Your task to perform on an android device: stop showing notifications on the lock screen Image 0: 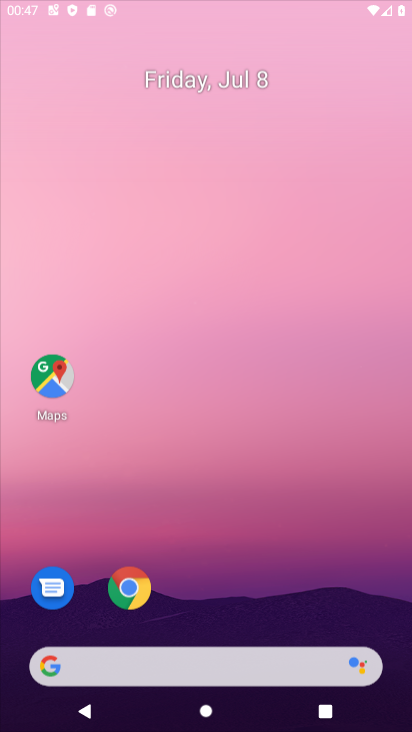
Step 0: click (296, 6)
Your task to perform on an android device: stop showing notifications on the lock screen Image 1: 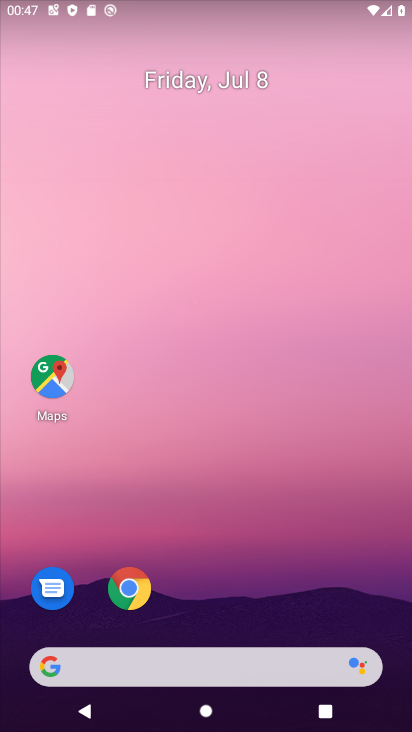
Step 1: drag from (193, 639) to (306, 99)
Your task to perform on an android device: stop showing notifications on the lock screen Image 2: 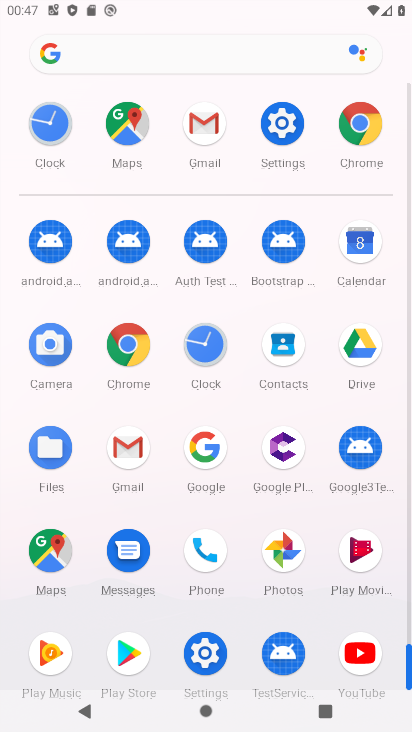
Step 2: click (289, 130)
Your task to perform on an android device: stop showing notifications on the lock screen Image 3: 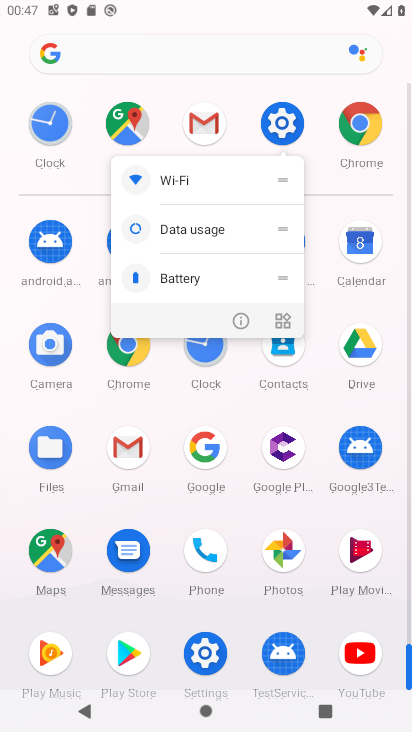
Step 3: click (239, 316)
Your task to perform on an android device: stop showing notifications on the lock screen Image 4: 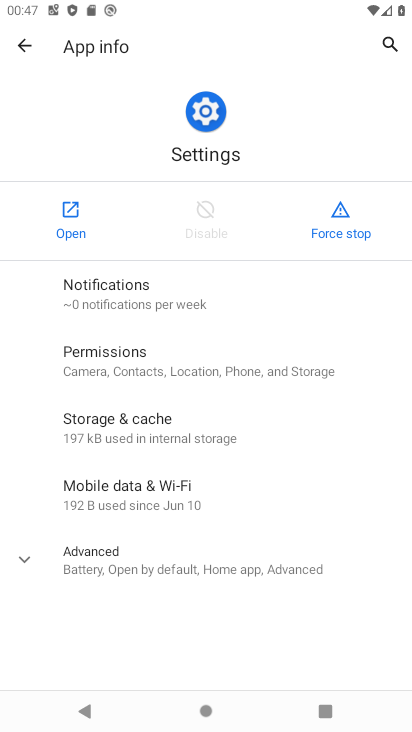
Step 4: click (68, 223)
Your task to perform on an android device: stop showing notifications on the lock screen Image 5: 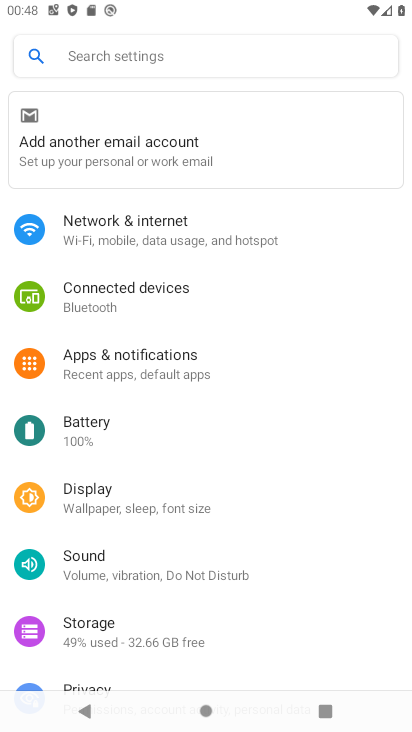
Step 5: drag from (205, 602) to (296, 195)
Your task to perform on an android device: stop showing notifications on the lock screen Image 6: 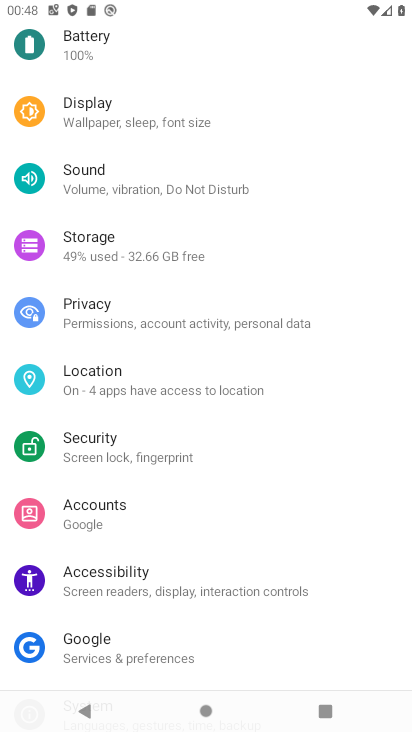
Step 6: drag from (191, 162) to (186, 617)
Your task to perform on an android device: stop showing notifications on the lock screen Image 7: 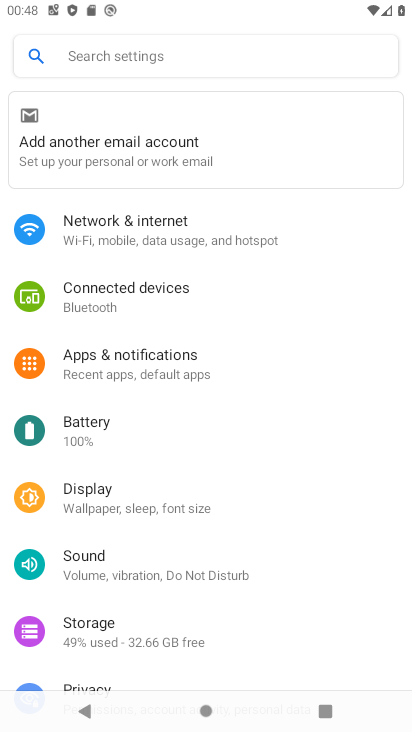
Step 7: click (112, 364)
Your task to perform on an android device: stop showing notifications on the lock screen Image 8: 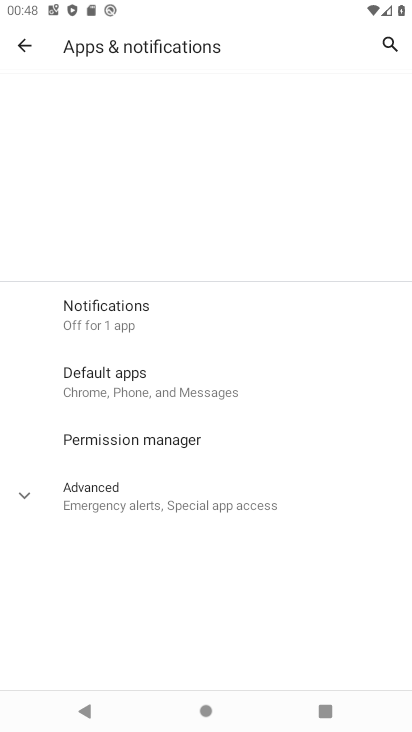
Step 8: drag from (132, 537) to (202, 260)
Your task to perform on an android device: stop showing notifications on the lock screen Image 9: 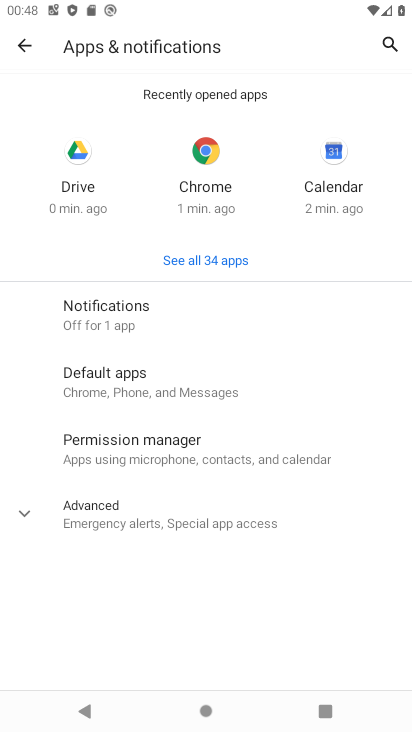
Step 9: click (146, 311)
Your task to perform on an android device: stop showing notifications on the lock screen Image 10: 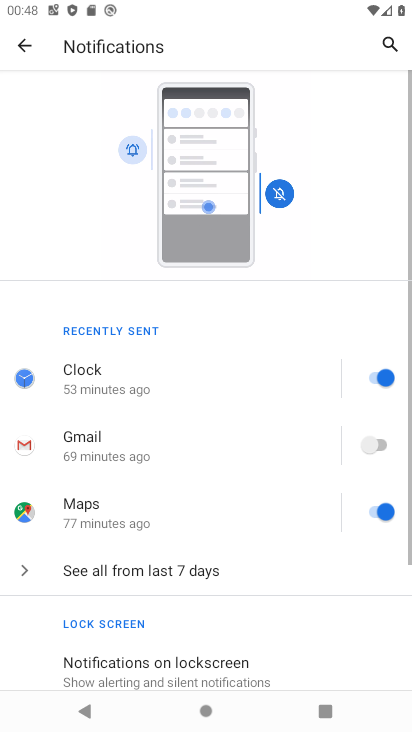
Step 10: drag from (197, 574) to (310, 161)
Your task to perform on an android device: stop showing notifications on the lock screen Image 11: 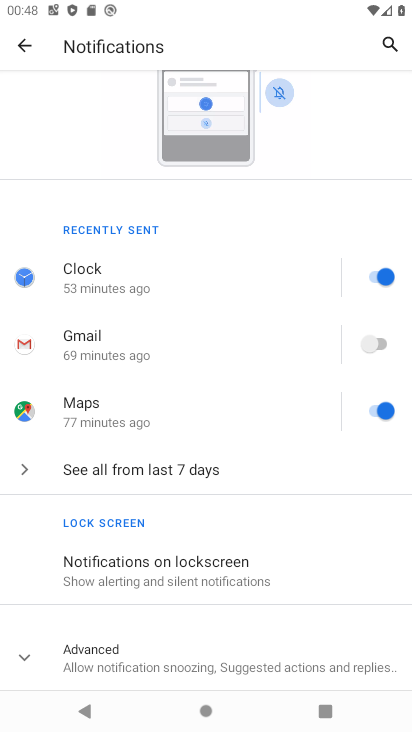
Step 11: click (104, 663)
Your task to perform on an android device: stop showing notifications on the lock screen Image 12: 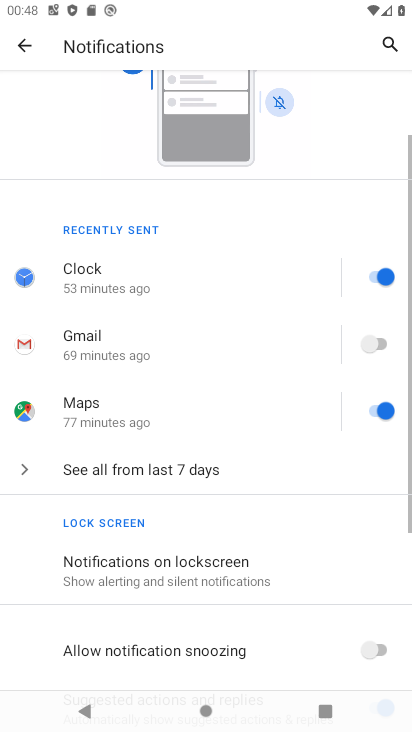
Step 12: click (187, 575)
Your task to perform on an android device: stop showing notifications on the lock screen Image 13: 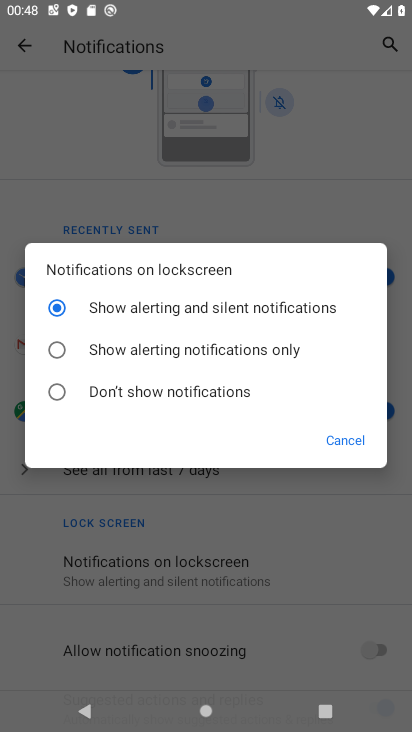
Step 13: click (158, 347)
Your task to perform on an android device: stop showing notifications on the lock screen Image 14: 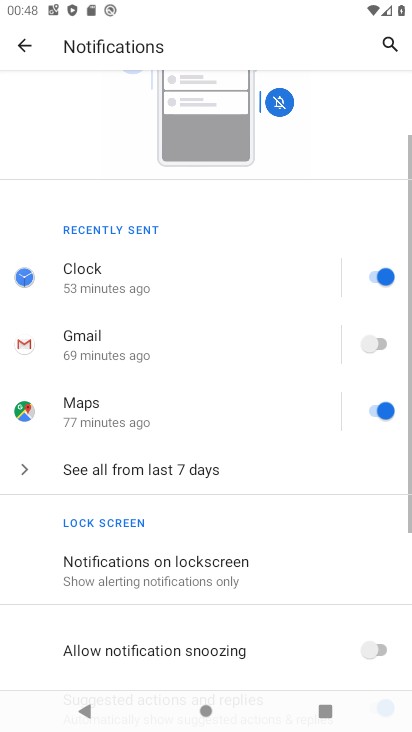
Step 14: task complete